Your task to perform on an android device: What's the weather? Image 0: 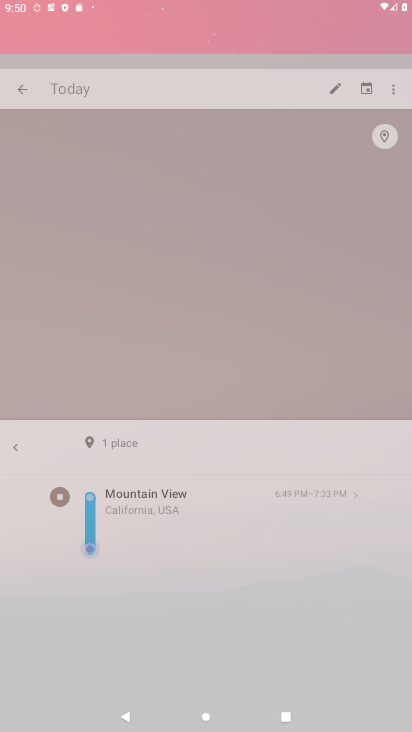
Step 0: press home button
Your task to perform on an android device: What's the weather? Image 1: 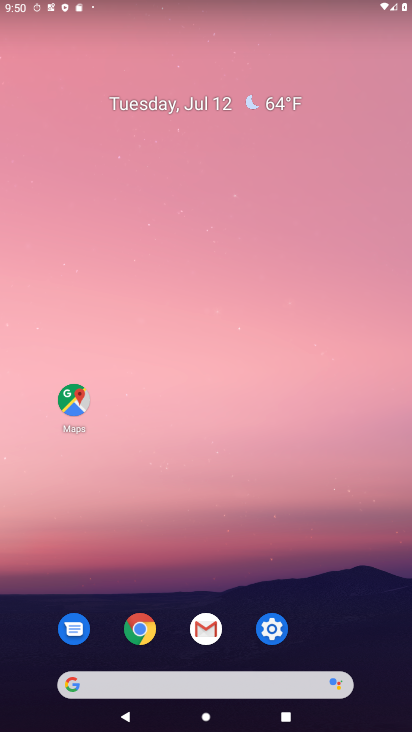
Step 1: click (177, 682)
Your task to perform on an android device: What's the weather? Image 2: 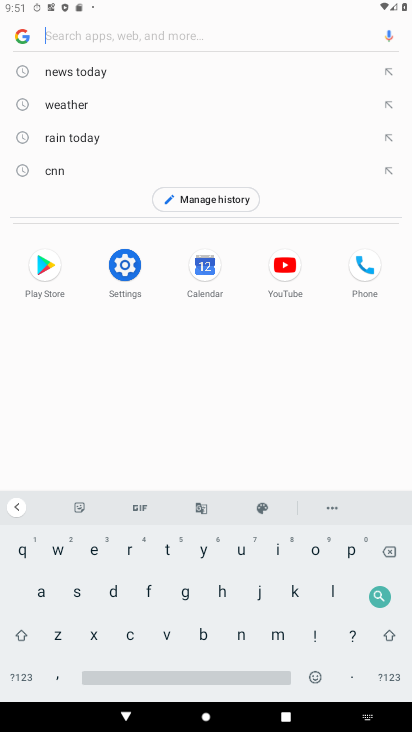
Step 2: click (95, 108)
Your task to perform on an android device: What's the weather? Image 3: 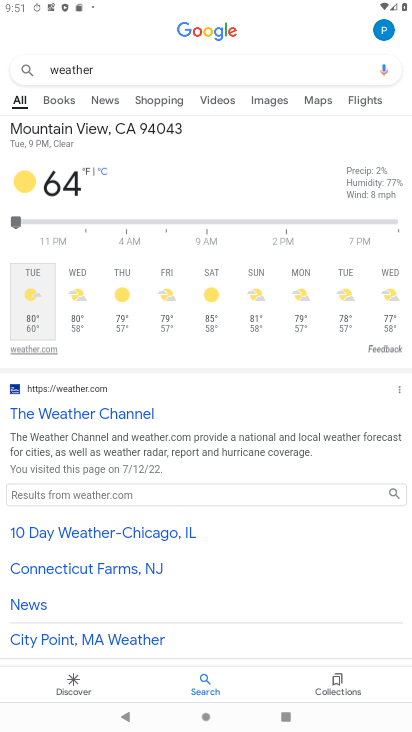
Step 3: task complete